Your task to perform on an android device: change the clock display to show seconds Image 0: 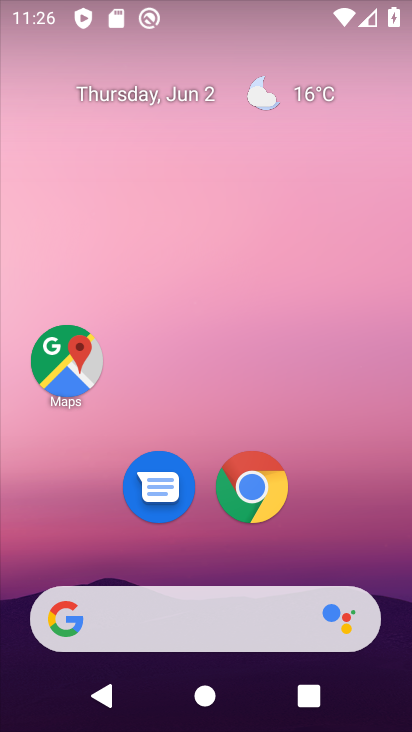
Step 0: drag from (338, 527) to (234, 253)
Your task to perform on an android device: change the clock display to show seconds Image 1: 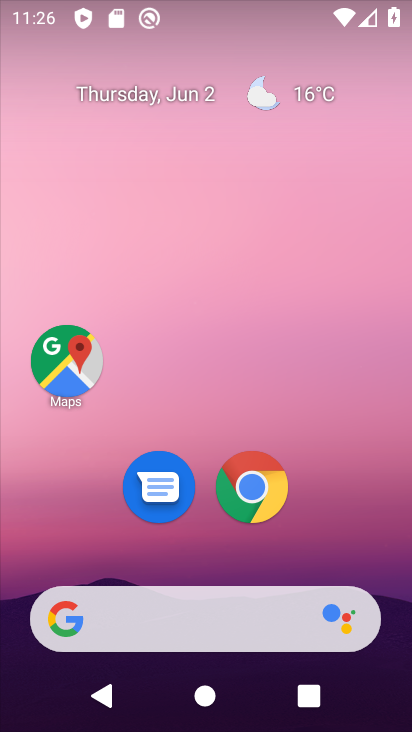
Step 1: drag from (344, 507) to (285, 46)
Your task to perform on an android device: change the clock display to show seconds Image 2: 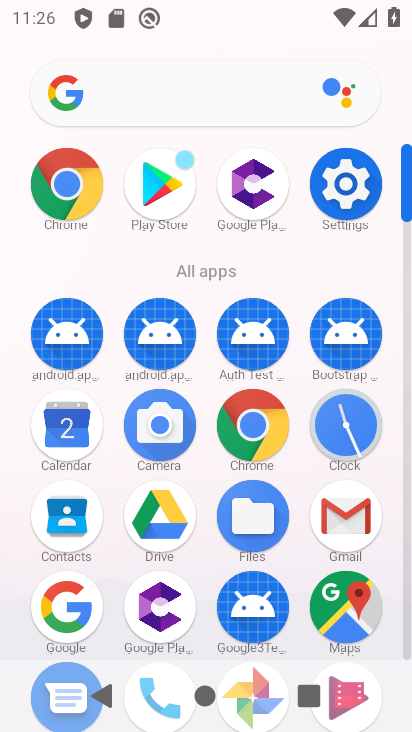
Step 2: click (355, 438)
Your task to perform on an android device: change the clock display to show seconds Image 3: 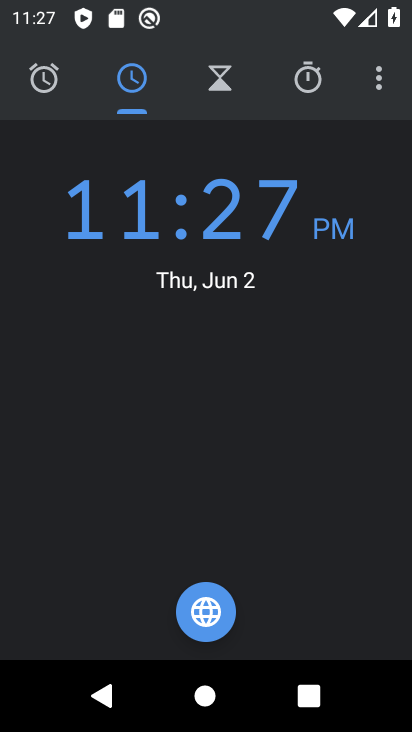
Step 3: click (381, 78)
Your task to perform on an android device: change the clock display to show seconds Image 4: 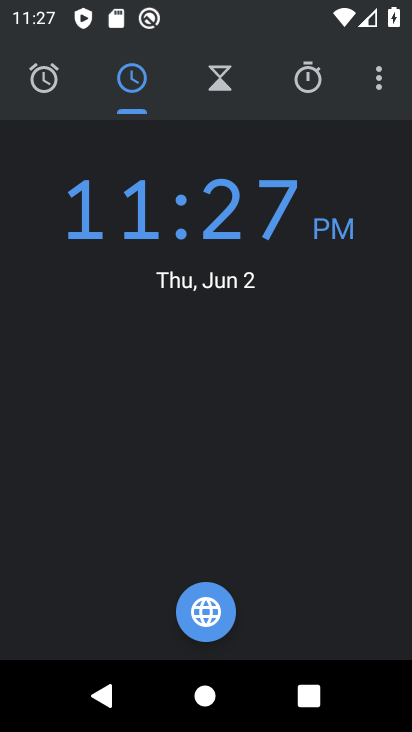
Step 4: click (382, 73)
Your task to perform on an android device: change the clock display to show seconds Image 5: 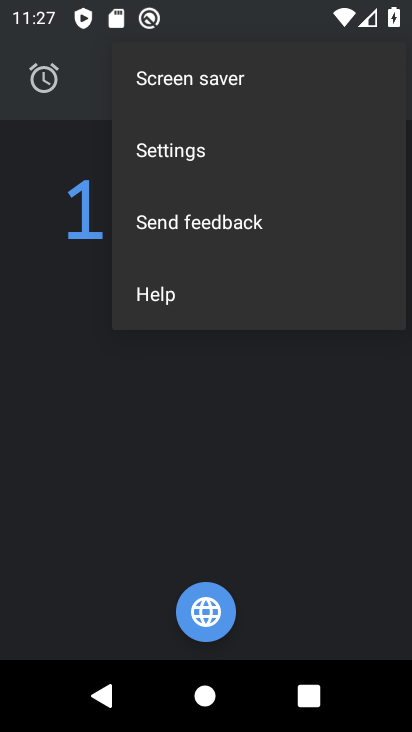
Step 5: click (181, 165)
Your task to perform on an android device: change the clock display to show seconds Image 6: 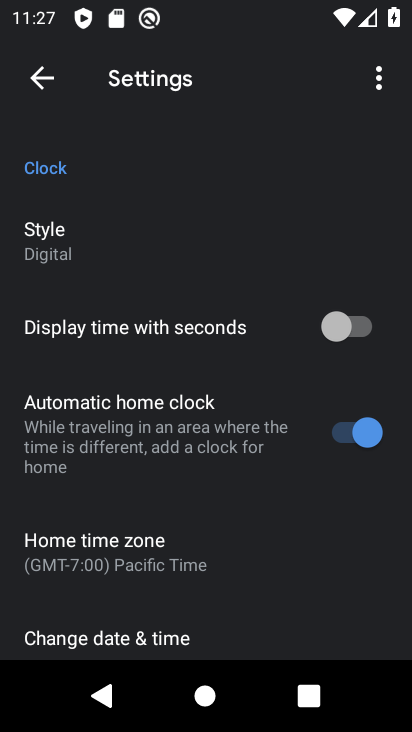
Step 6: click (348, 330)
Your task to perform on an android device: change the clock display to show seconds Image 7: 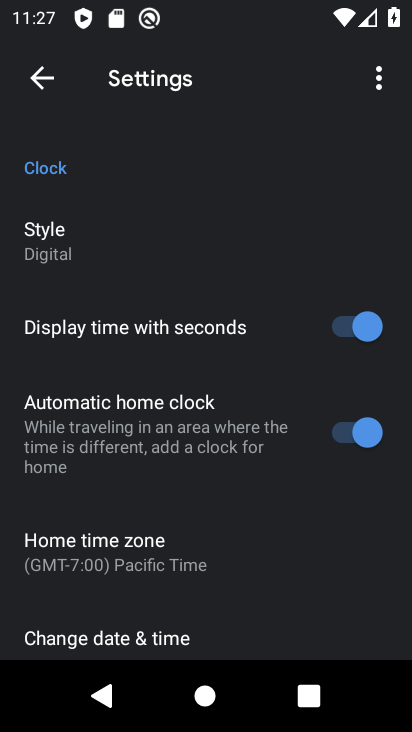
Step 7: task complete